Your task to perform on an android device: open app "Speedtest by Ookla" (install if not already installed) and enter user name: "hyena@outlook.com" and password: "terminators" Image 0: 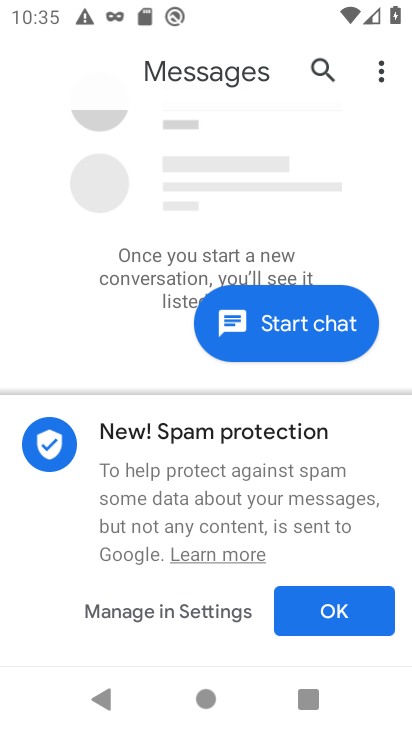
Step 0: press home button
Your task to perform on an android device: open app "Speedtest by Ookla" (install if not already installed) and enter user name: "hyena@outlook.com" and password: "terminators" Image 1: 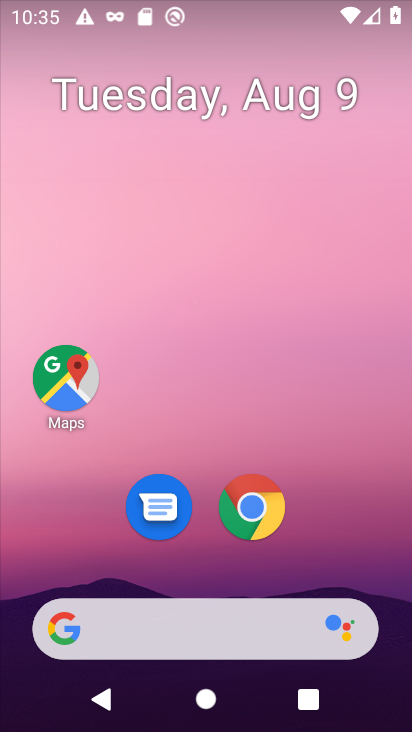
Step 1: drag from (145, 633) to (224, 115)
Your task to perform on an android device: open app "Speedtest by Ookla" (install if not already installed) and enter user name: "hyena@outlook.com" and password: "terminators" Image 2: 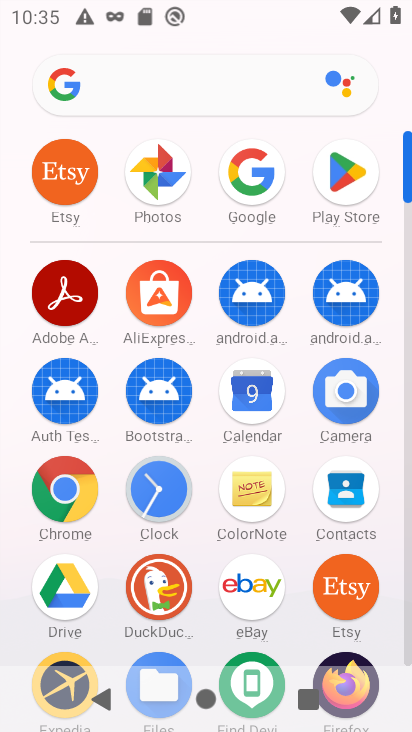
Step 2: click (352, 176)
Your task to perform on an android device: open app "Speedtest by Ookla" (install if not already installed) and enter user name: "hyena@outlook.com" and password: "terminators" Image 3: 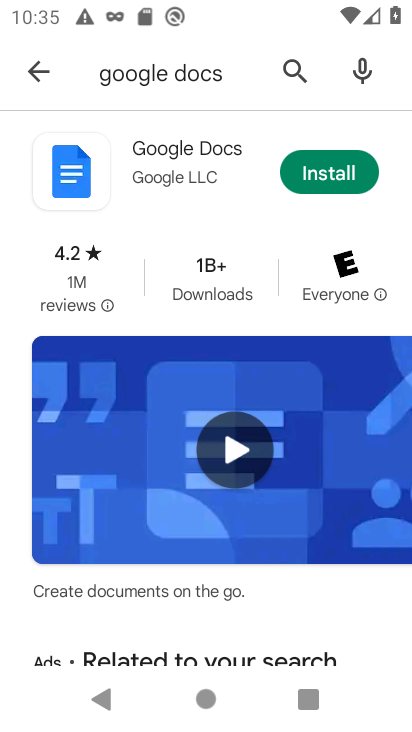
Step 3: click (285, 66)
Your task to perform on an android device: open app "Speedtest by Ookla" (install if not already installed) and enter user name: "hyena@outlook.com" and password: "terminators" Image 4: 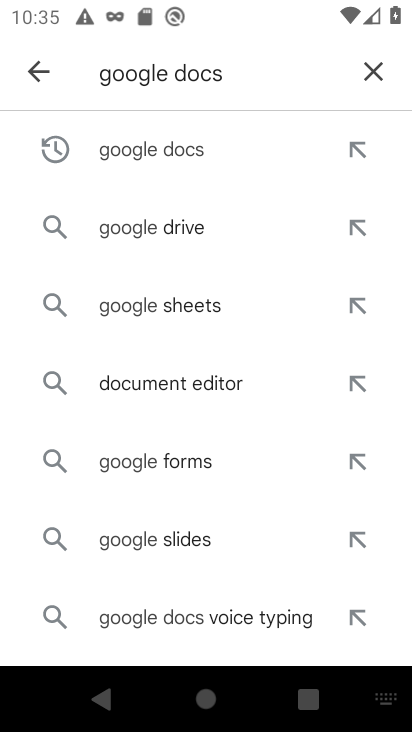
Step 4: click (370, 74)
Your task to perform on an android device: open app "Speedtest by Ookla" (install if not already installed) and enter user name: "hyena@outlook.com" and password: "terminators" Image 5: 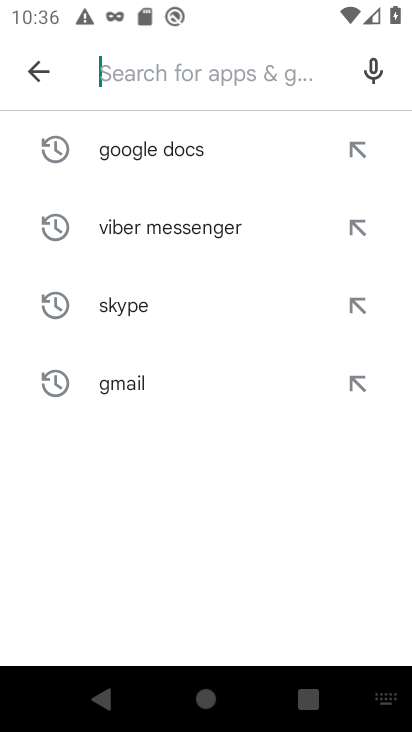
Step 5: type "Speedtest by Ookla"
Your task to perform on an android device: open app "Speedtest by Ookla" (install if not already installed) and enter user name: "hyena@outlook.com" and password: "terminators" Image 6: 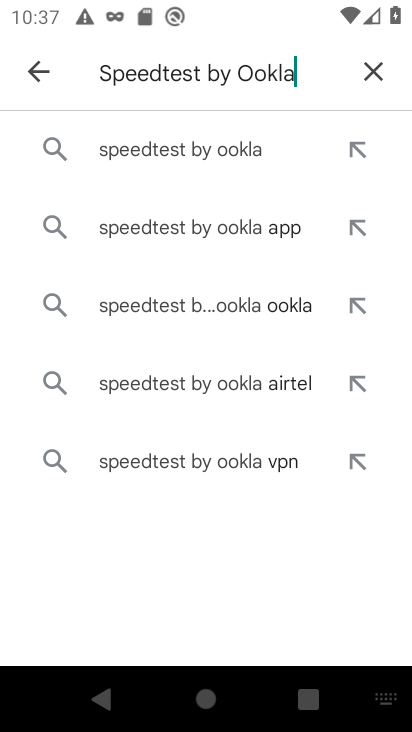
Step 6: click (225, 151)
Your task to perform on an android device: open app "Speedtest by Ookla" (install if not already installed) and enter user name: "hyena@outlook.com" and password: "terminators" Image 7: 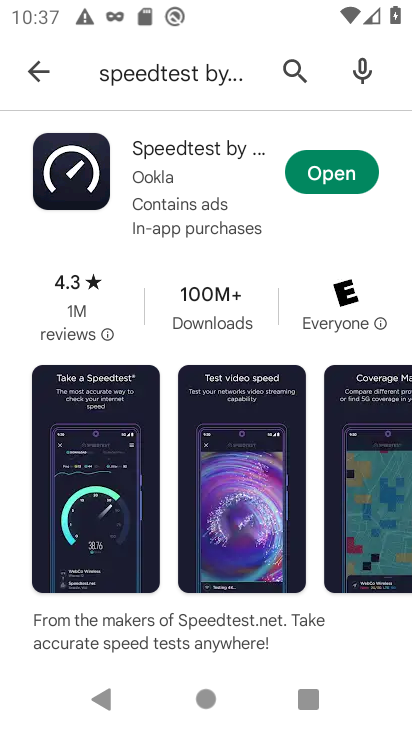
Step 7: click (335, 174)
Your task to perform on an android device: open app "Speedtest by Ookla" (install if not already installed) and enter user name: "hyena@outlook.com" and password: "terminators" Image 8: 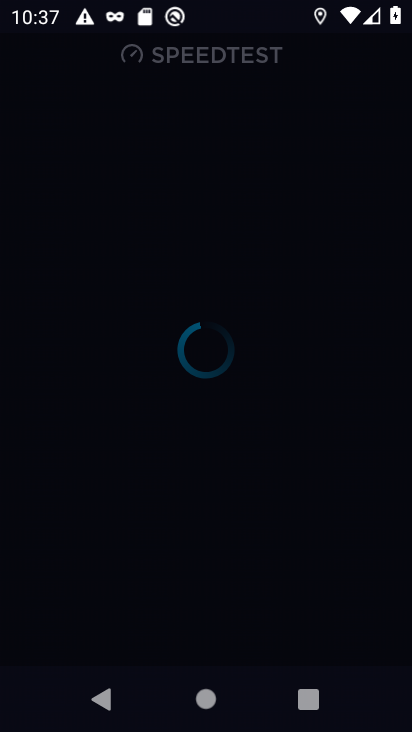
Step 8: click (327, 438)
Your task to perform on an android device: open app "Speedtest by Ookla" (install if not already installed) and enter user name: "hyena@outlook.com" and password: "terminators" Image 9: 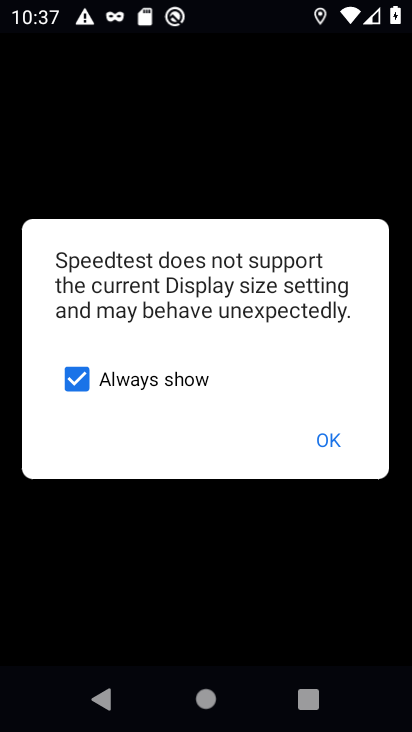
Step 9: click (327, 438)
Your task to perform on an android device: open app "Speedtest by Ookla" (install if not already installed) and enter user name: "hyena@outlook.com" and password: "terminators" Image 10: 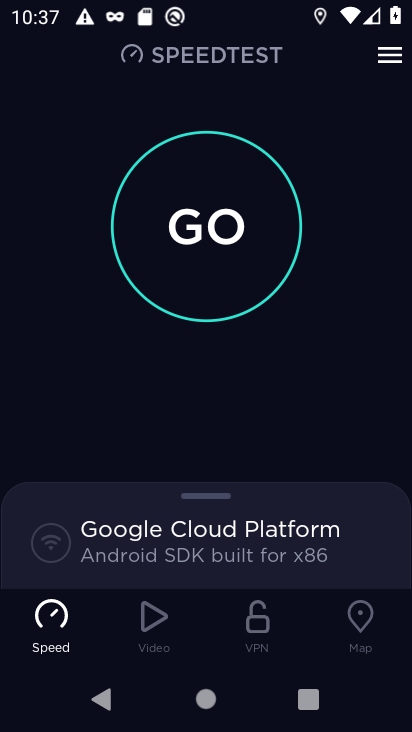
Step 10: click (385, 66)
Your task to perform on an android device: open app "Speedtest by Ookla" (install if not already installed) and enter user name: "hyena@outlook.com" and password: "terminators" Image 11: 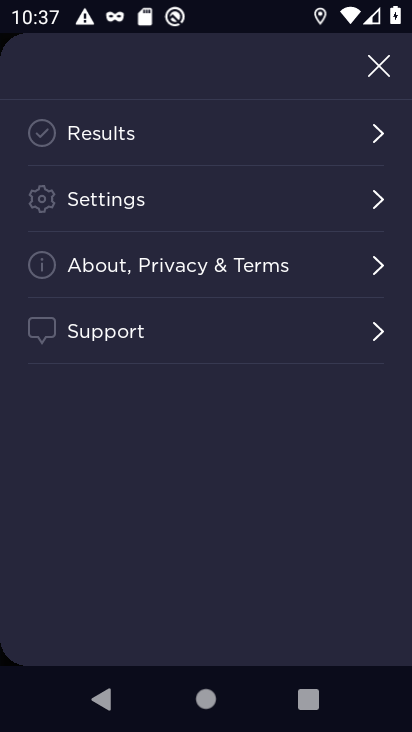
Step 11: click (375, 56)
Your task to perform on an android device: open app "Speedtest by Ookla" (install if not already installed) and enter user name: "hyena@outlook.com" and password: "terminators" Image 12: 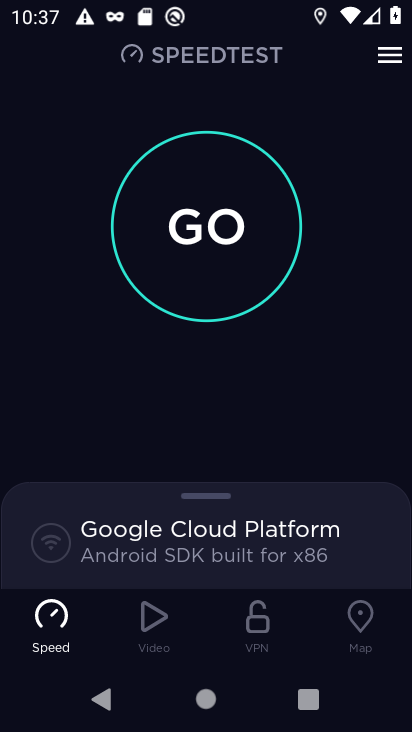
Step 12: click (366, 612)
Your task to perform on an android device: open app "Speedtest by Ookla" (install if not already installed) and enter user name: "hyena@outlook.com" and password: "terminators" Image 13: 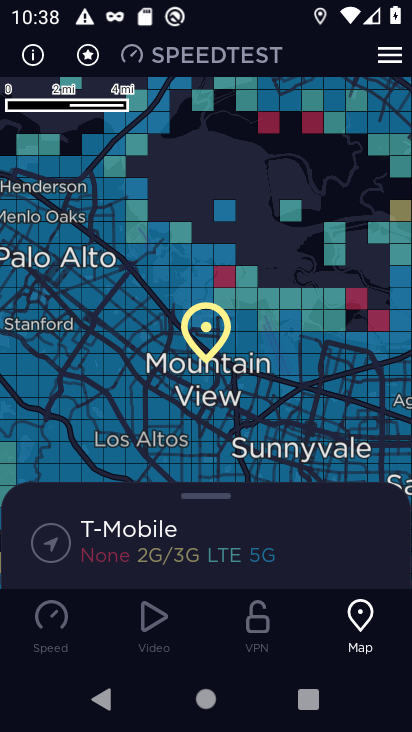
Step 13: click (35, 61)
Your task to perform on an android device: open app "Speedtest by Ookla" (install if not already installed) and enter user name: "hyena@outlook.com" and password: "terminators" Image 14: 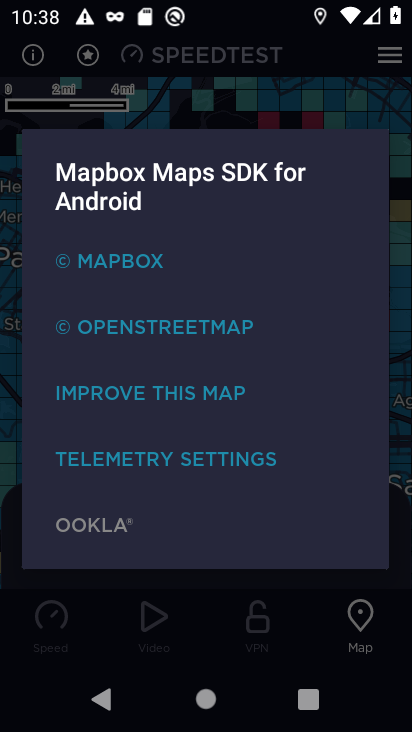
Step 14: click (399, 62)
Your task to perform on an android device: open app "Speedtest by Ookla" (install if not already installed) and enter user name: "hyena@outlook.com" and password: "terminators" Image 15: 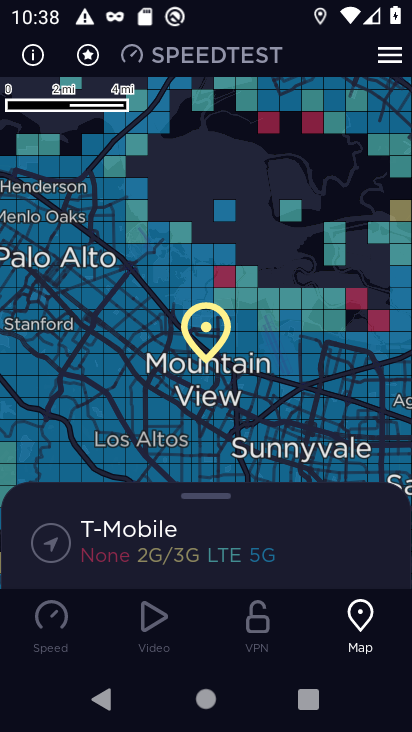
Step 15: click (399, 62)
Your task to perform on an android device: open app "Speedtest by Ookla" (install if not already installed) and enter user name: "hyena@outlook.com" and password: "terminators" Image 16: 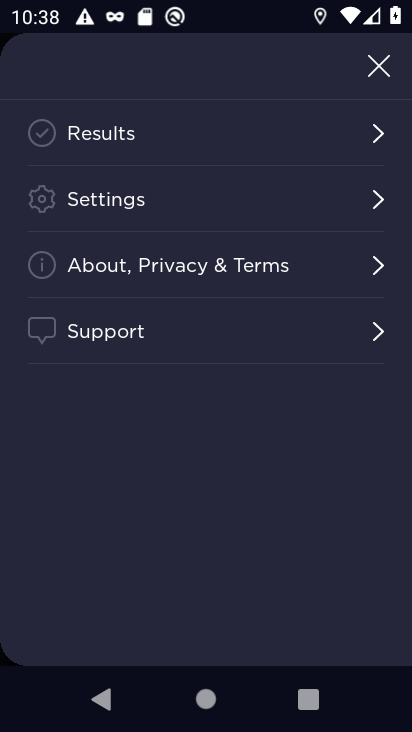
Step 16: click (379, 66)
Your task to perform on an android device: open app "Speedtest by Ookla" (install if not already installed) and enter user name: "hyena@outlook.com" and password: "terminators" Image 17: 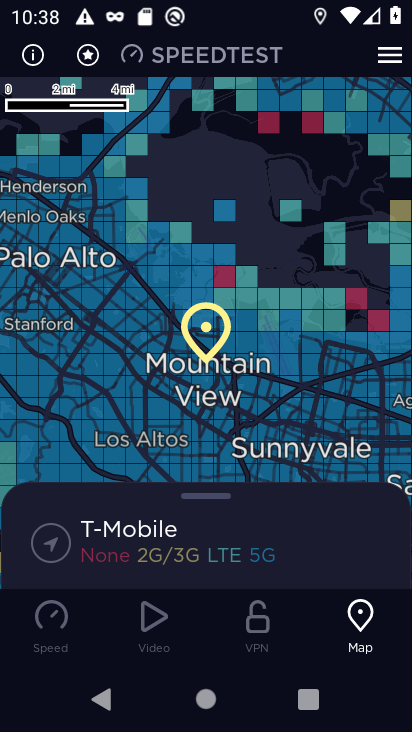
Step 17: click (400, 64)
Your task to perform on an android device: open app "Speedtest by Ookla" (install if not already installed) and enter user name: "hyena@outlook.com" and password: "terminators" Image 18: 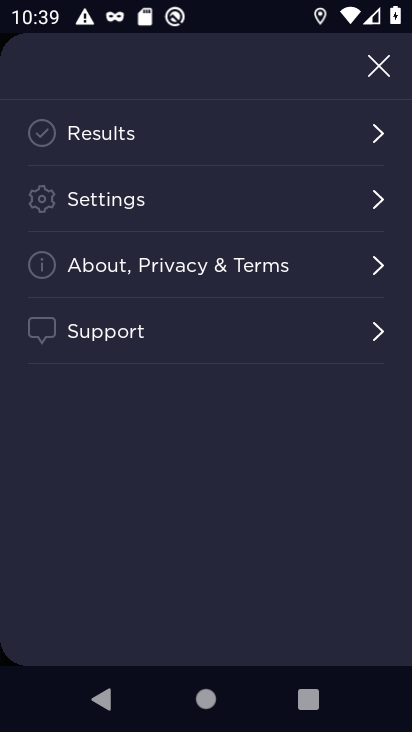
Step 18: click (43, 203)
Your task to perform on an android device: open app "Speedtest by Ookla" (install if not already installed) and enter user name: "hyena@outlook.com" and password: "terminators" Image 19: 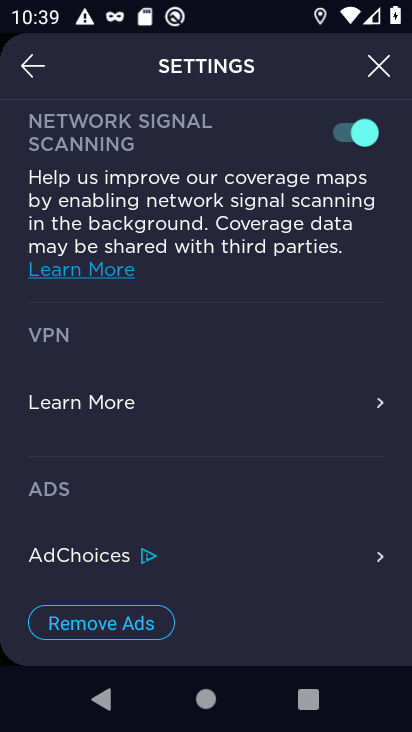
Step 19: click (382, 75)
Your task to perform on an android device: open app "Speedtest by Ookla" (install if not already installed) and enter user name: "hyena@outlook.com" and password: "terminators" Image 20: 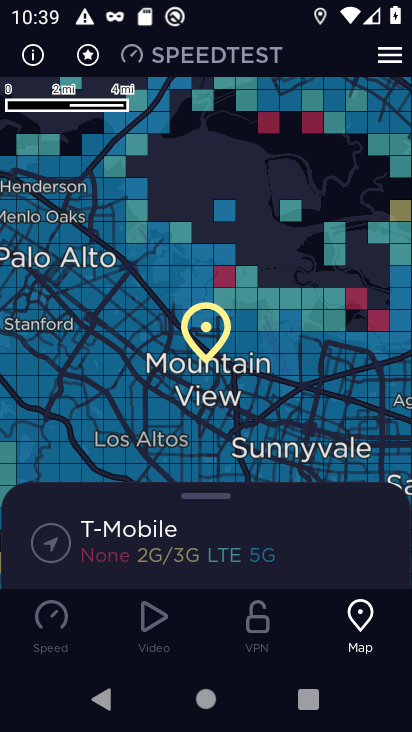
Step 20: click (56, 624)
Your task to perform on an android device: open app "Speedtest by Ookla" (install if not already installed) and enter user name: "hyena@outlook.com" and password: "terminators" Image 21: 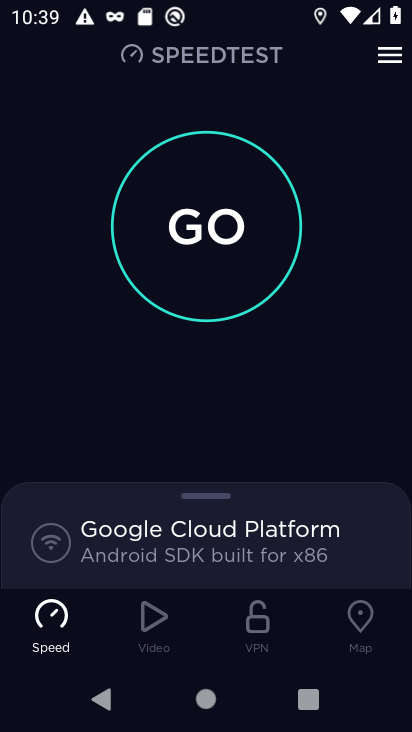
Step 21: click (146, 620)
Your task to perform on an android device: open app "Speedtest by Ookla" (install if not already installed) and enter user name: "hyena@outlook.com" and password: "terminators" Image 22: 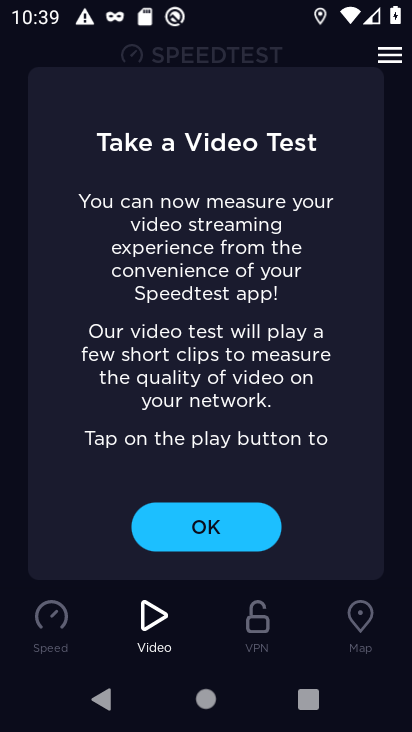
Step 22: click (264, 638)
Your task to perform on an android device: open app "Speedtest by Ookla" (install if not already installed) and enter user name: "hyena@outlook.com" and password: "terminators" Image 23: 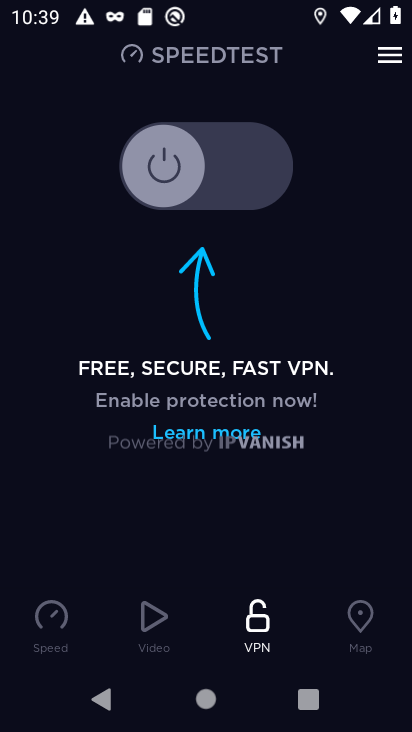
Step 23: click (368, 629)
Your task to perform on an android device: open app "Speedtest by Ookla" (install if not already installed) and enter user name: "hyena@outlook.com" and password: "terminators" Image 24: 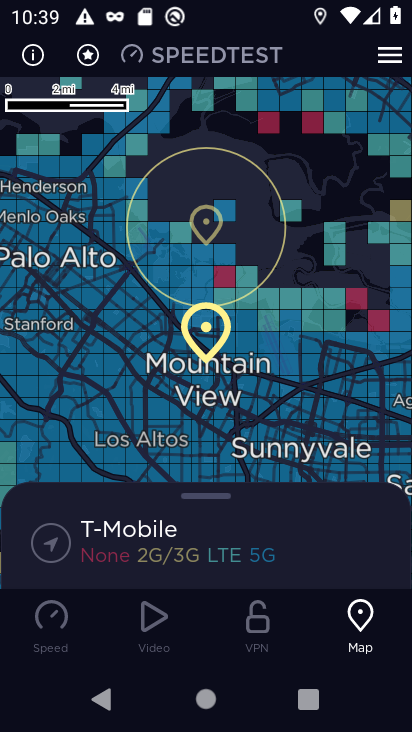
Step 24: task complete